Your task to perform on an android device: Go to accessibility settings Image 0: 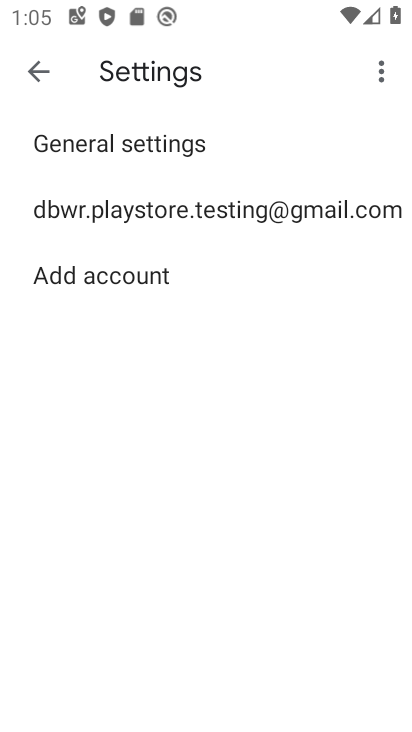
Step 0: press home button
Your task to perform on an android device: Go to accessibility settings Image 1: 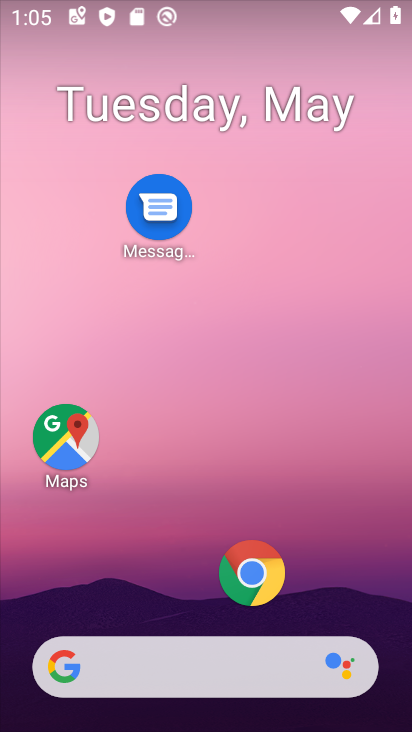
Step 1: drag from (168, 571) to (322, 0)
Your task to perform on an android device: Go to accessibility settings Image 2: 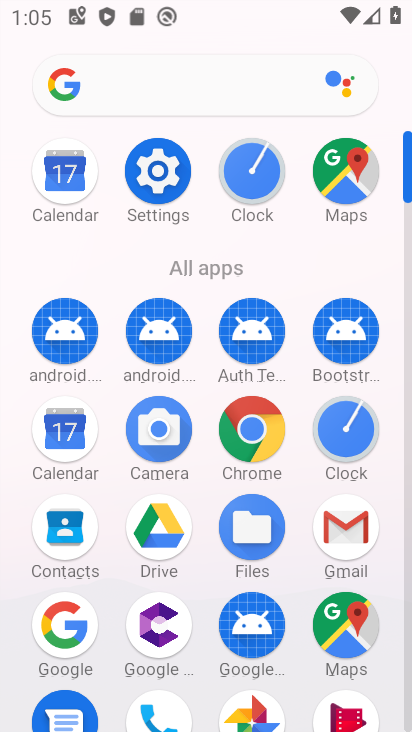
Step 2: click (174, 179)
Your task to perform on an android device: Go to accessibility settings Image 3: 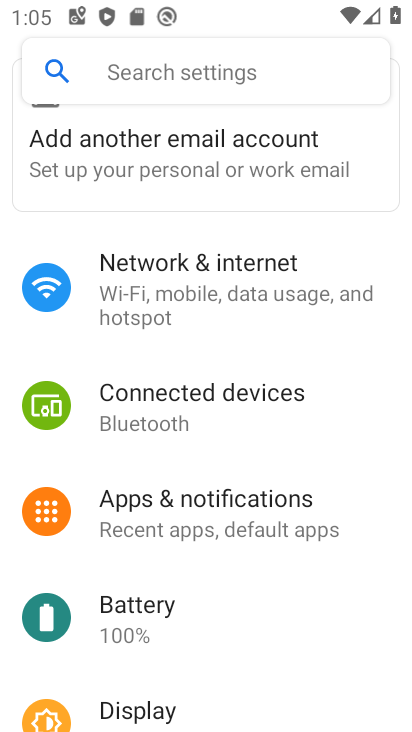
Step 3: drag from (152, 534) to (259, 174)
Your task to perform on an android device: Go to accessibility settings Image 4: 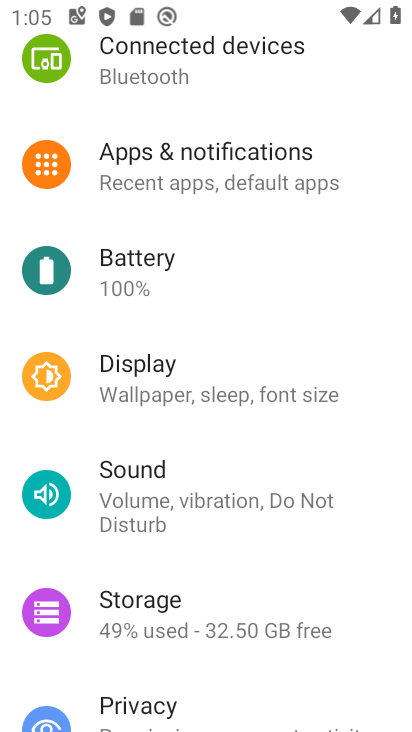
Step 4: drag from (243, 352) to (285, 209)
Your task to perform on an android device: Go to accessibility settings Image 5: 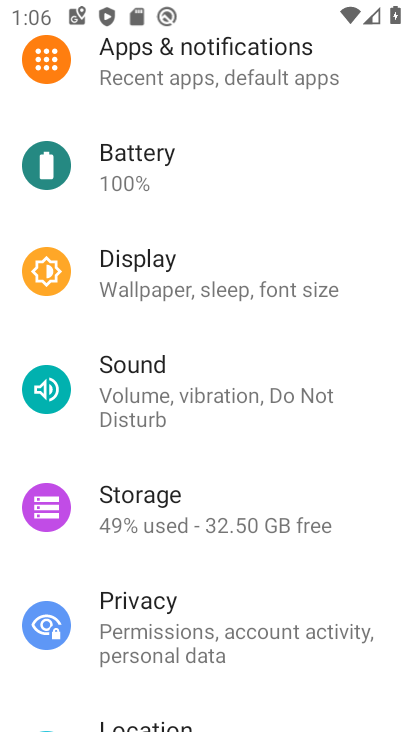
Step 5: drag from (206, 582) to (259, 391)
Your task to perform on an android device: Go to accessibility settings Image 6: 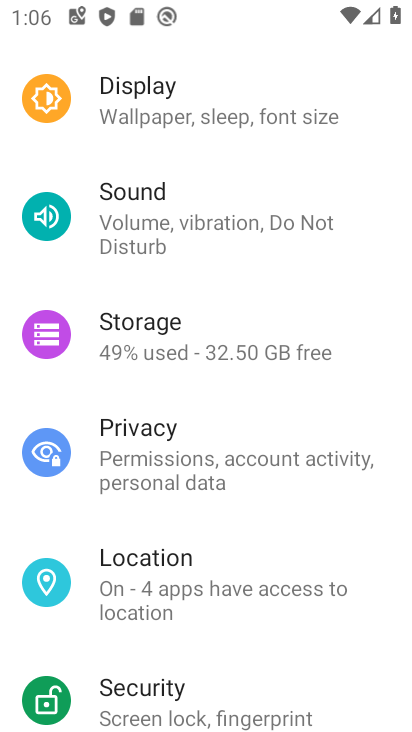
Step 6: drag from (208, 596) to (258, 367)
Your task to perform on an android device: Go to accessibility settings Image 7: 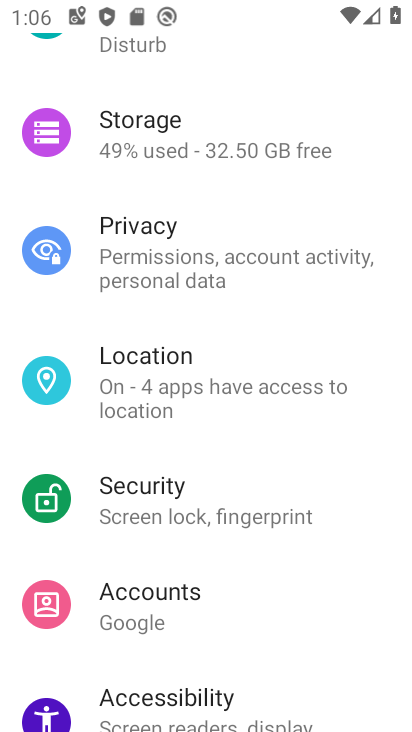
Step 7: drag from (183, 645) to (233, 416)
Your task to perform on an android device: Go to accessibility settings Image 8: 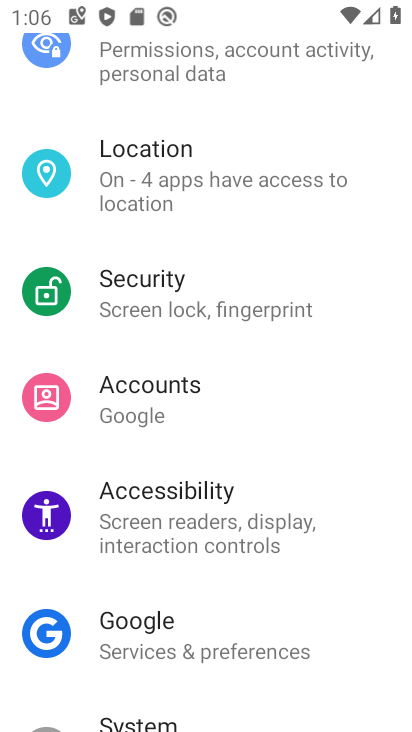
Step 8: click (175, 520)
Your task to perform on an android device: Go to accessibility settings Image 9: 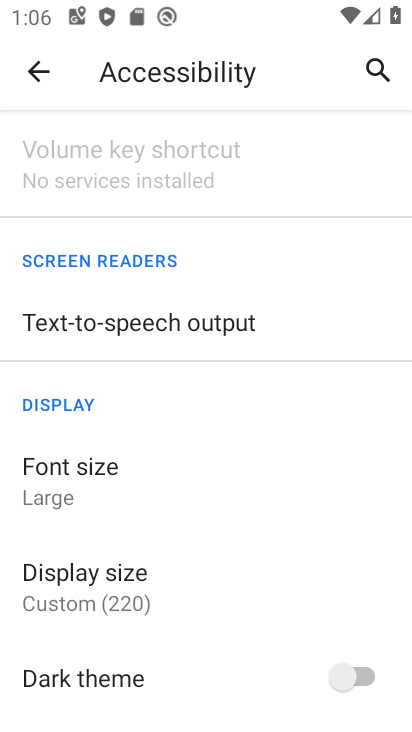
Step 9: task complete